Your task to perform on an android device: Open display settings Image 0: 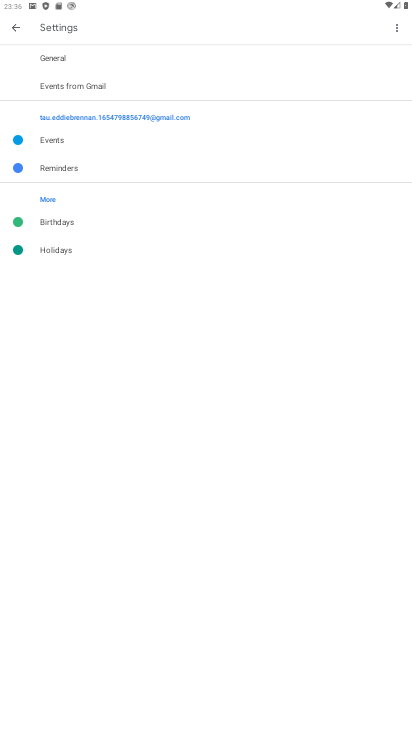
Step 0: press home button
Your task to perform on an android device: Open display settings Image 1: 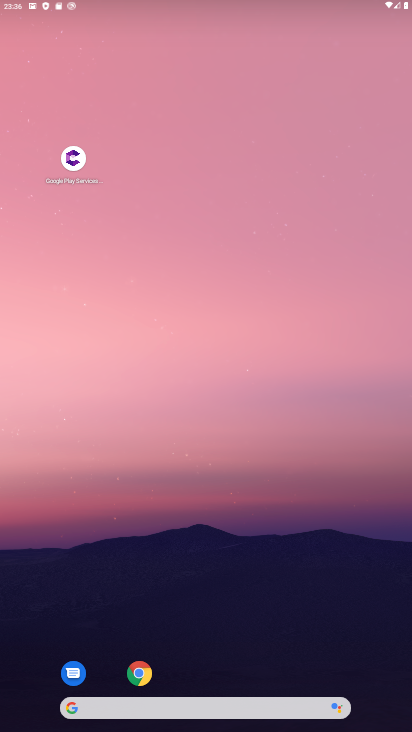
Step 1: drag from (263, 563) to (296, 21)
Your task to perform on an android device: Open display settings Image 2: 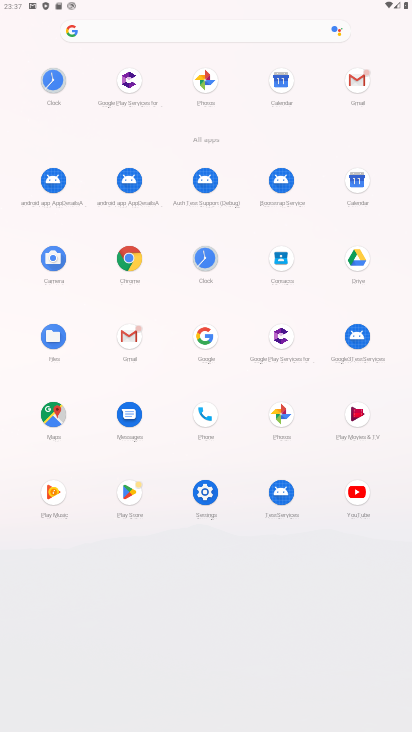
Step 2: click (204, 493)
Your task to perform on an android device: Open display settings Image 3: 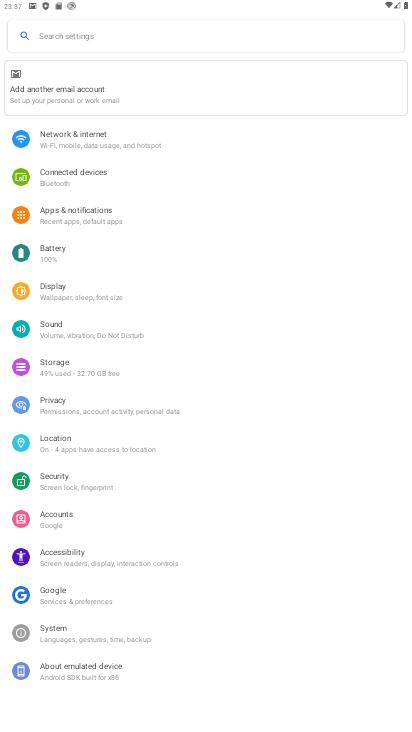
Step 3: click (54, 294)
Your task to perform on an android device: Open display settings Image 4: 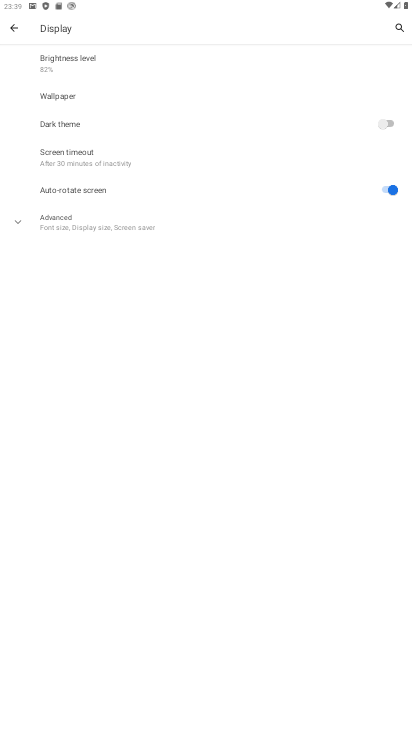
Step 4: task complete